Your task to perform on an android device: open app "Clock" Image 0: 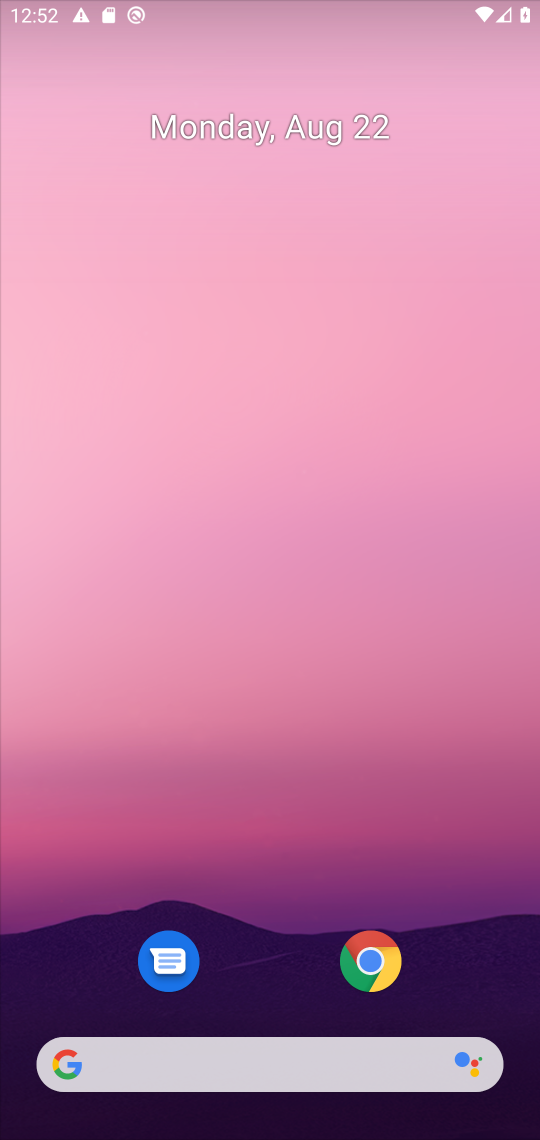
Step 0: press home button
Your task to perform on an android device: open app "Clock" Image 1: 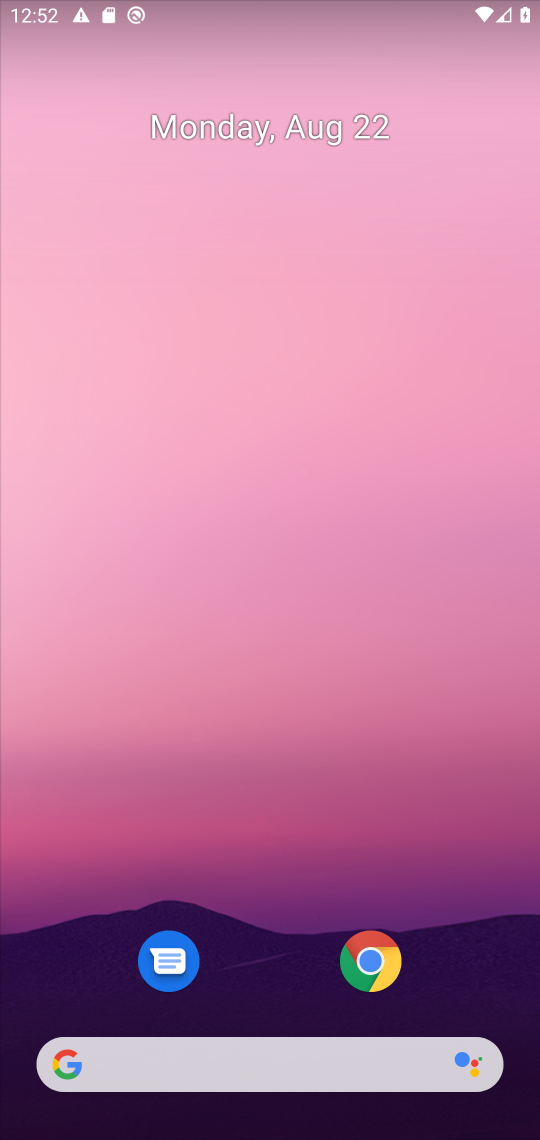
Step 1: drag from (479, 910) to (540, 260)
Your task to perform on an android device: open app "Clock" Image 2: 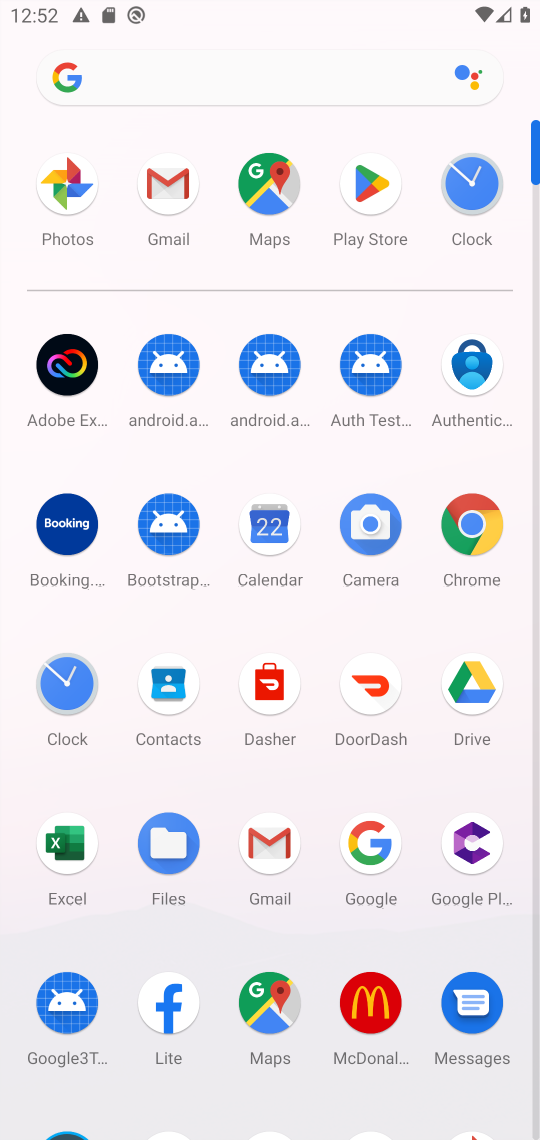
Step 2: click (373, 183)
Your task to perform on an android device: open app "Clock" Image 3: 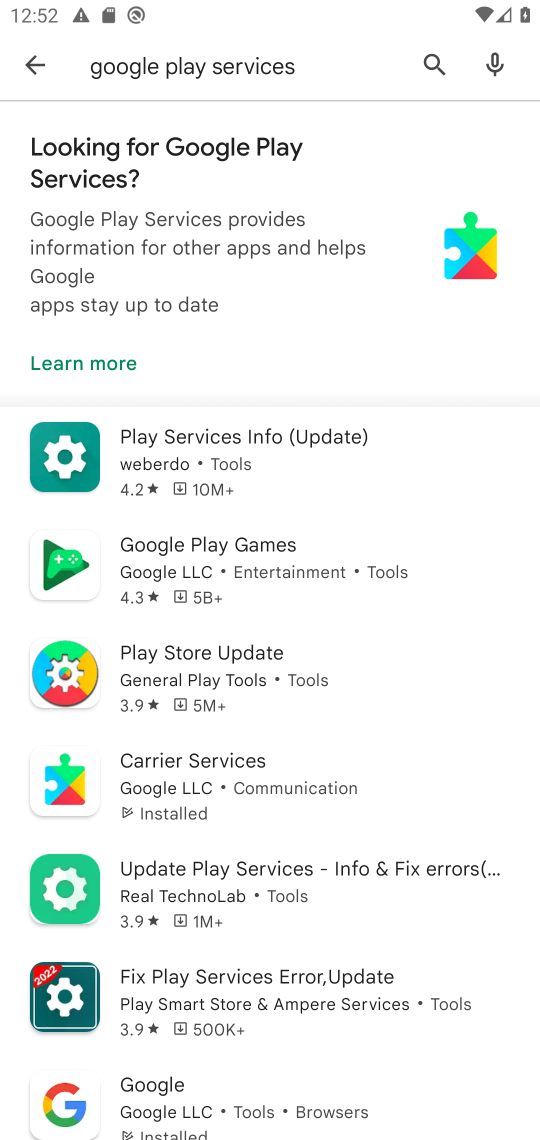
Step 3: click (433, 66)
Your task to perform on an android device: open app "Clock" Image 4: 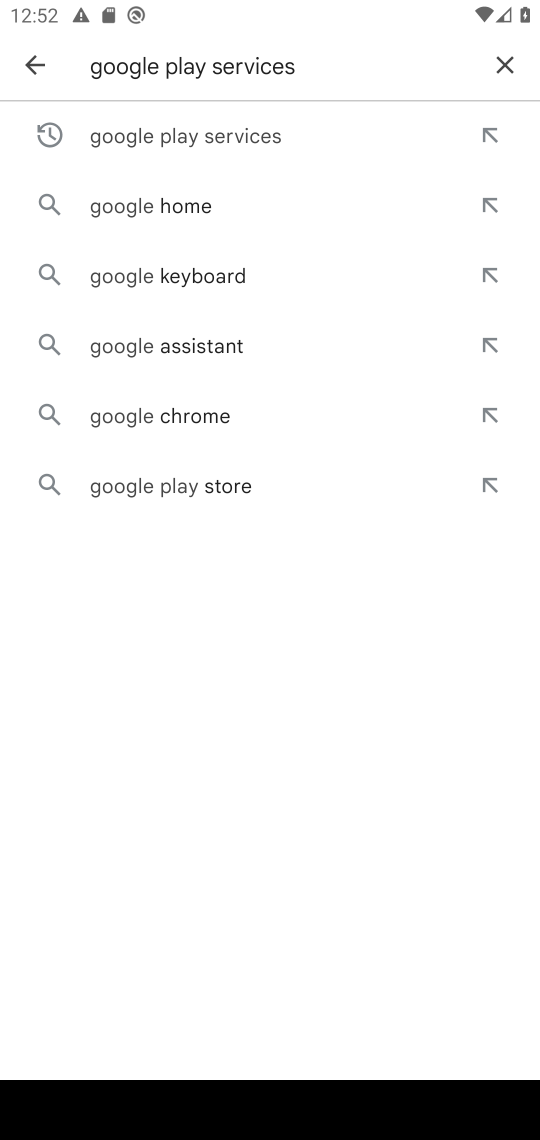
Step 4: press back button
Your task to perform on an android device: open app "Clock" Image 5: 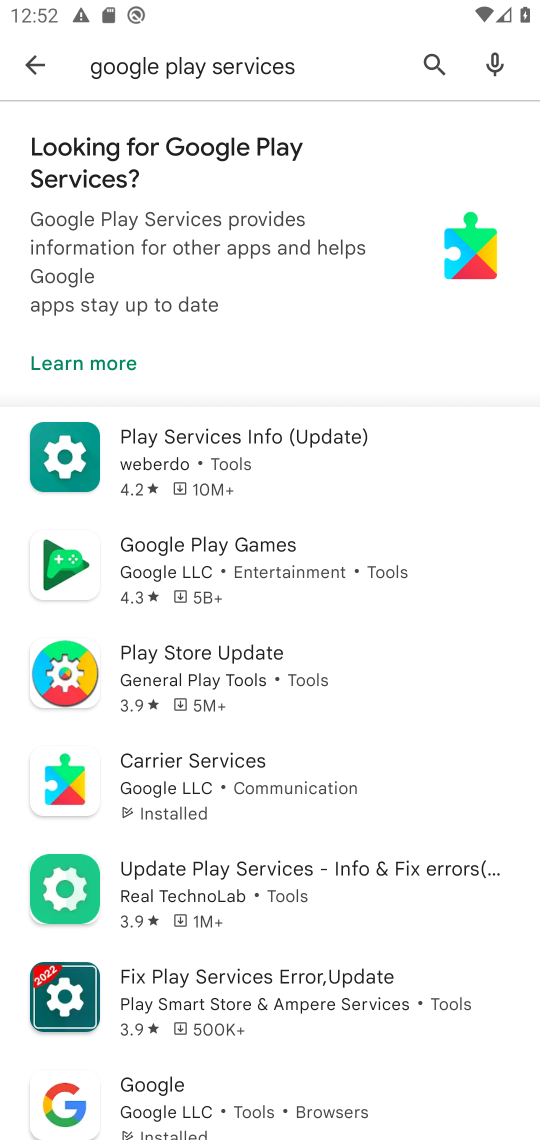
Step 5: press back button
Your task to perform on an android device: open app "Clock" Image 6: 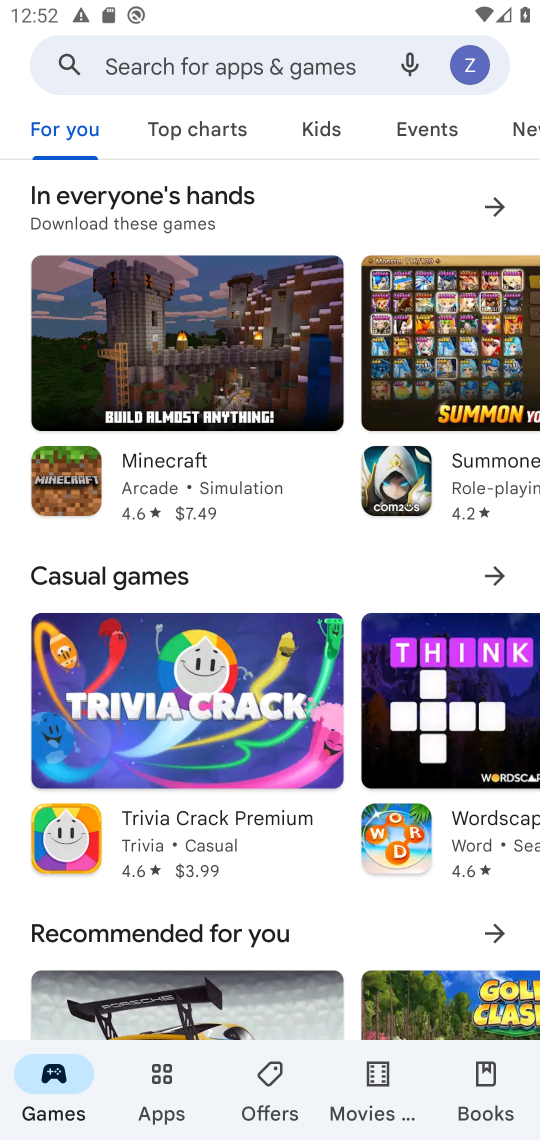
Step 6: click (294, 64)
Your task to perform on an android device: open app "Clock" Image 7: 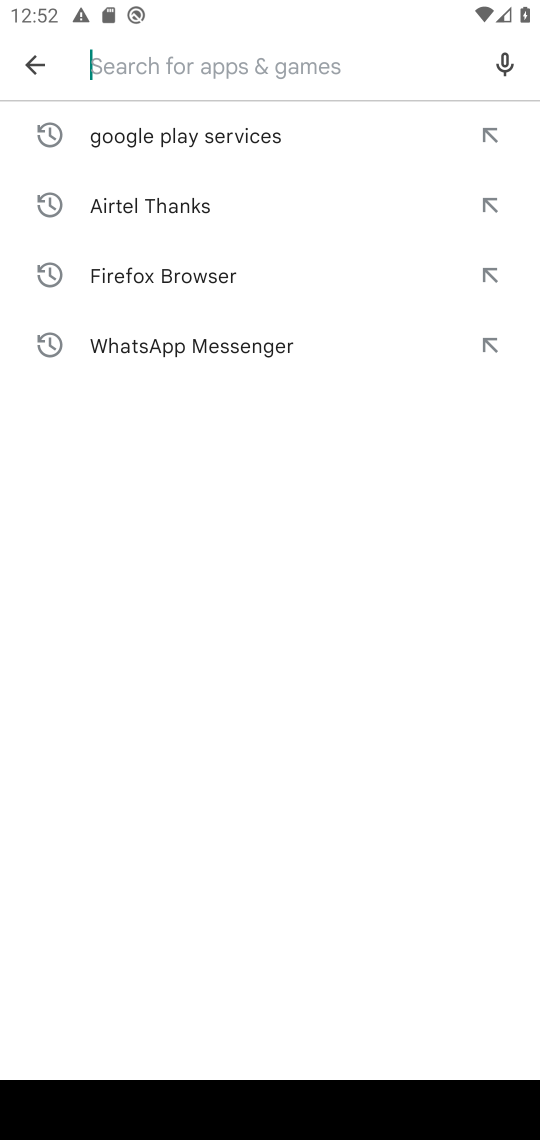
Step 7: type "clock"
Your task to perform on an android device: open app "Clock" Image 8: 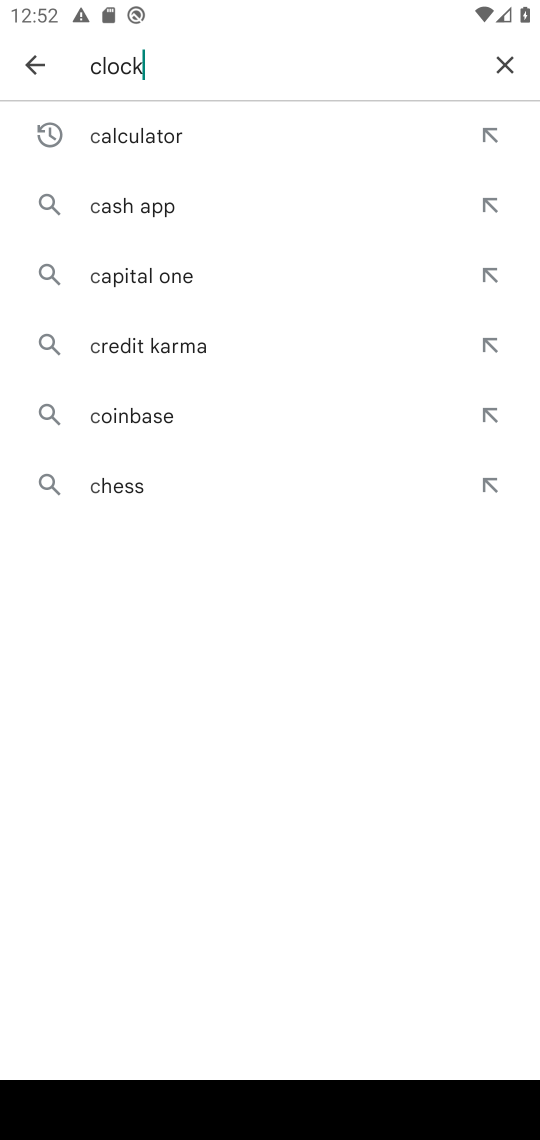
Step 8: press enter
Your task to perform on an android device: open app "Clock" Image 9: 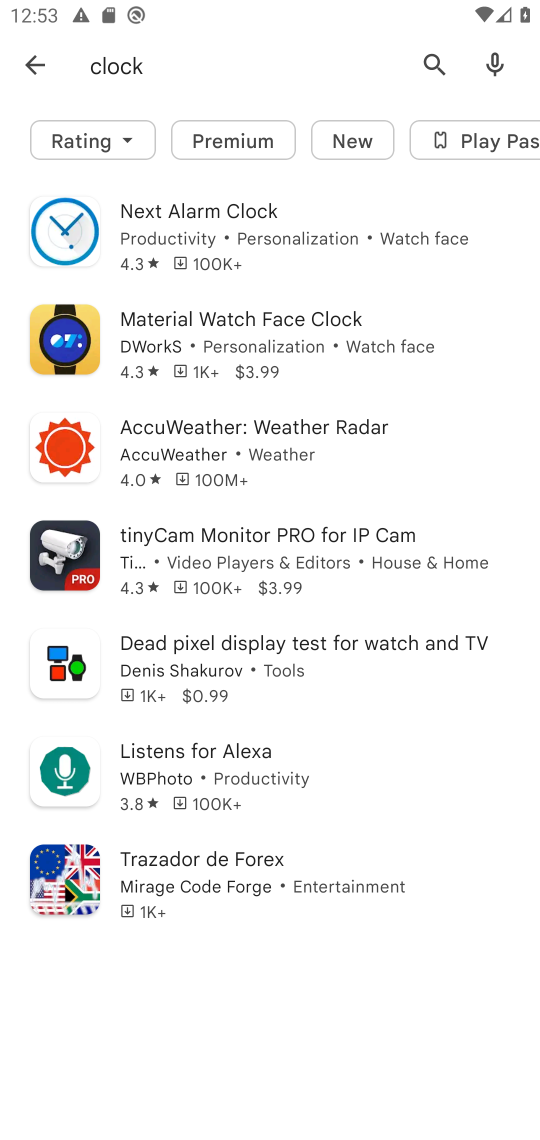
Step 9: task complete